Your task to perform on an android device: Open display settings Image 0: 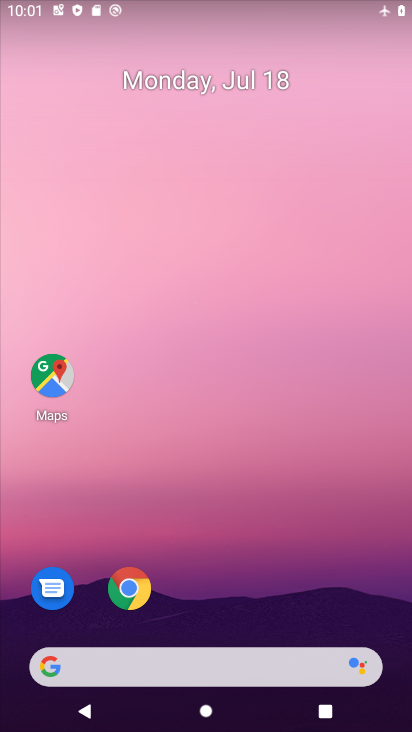
Step 0: drag from (227, 724) to (266, 180)
Your task to perform on an android device: Open display settings Image 1: 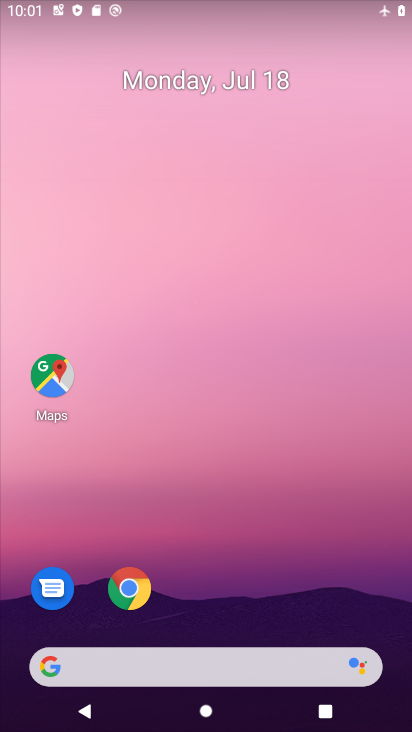
Step 1: drag from (227, 701) to (226, 129)
Your task to perform on an android device: Open display settings Image 2: 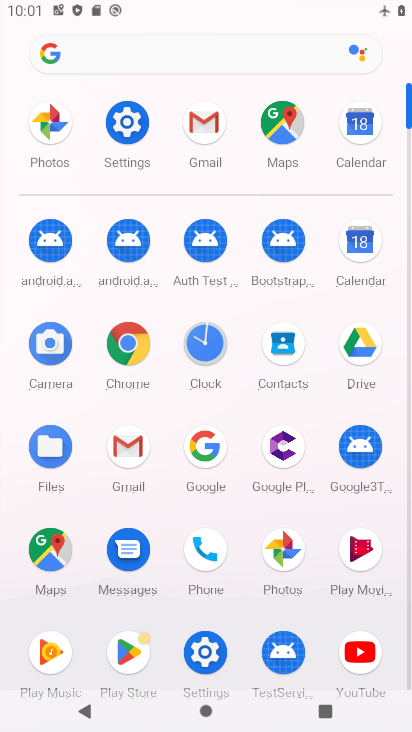
Step 2: click (130, 118)
Your task to perform on an android device: Open display settings Image 3: 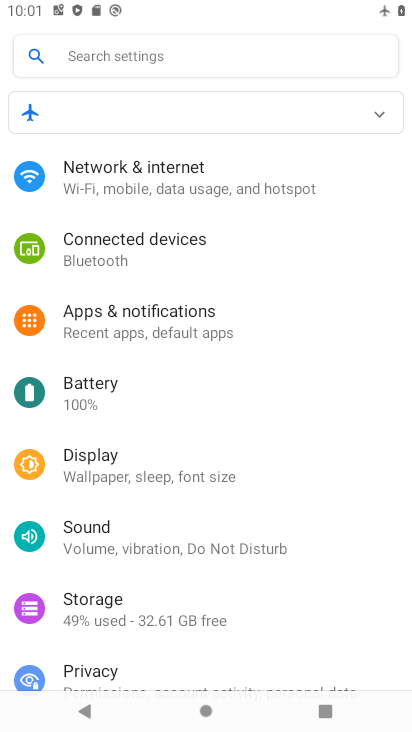
Step 3: click (107, 469)
Your task to perform on an android device: Open display settings Image 4: 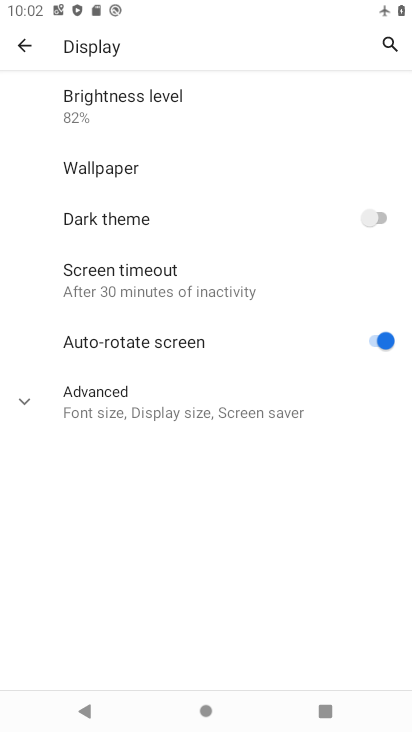
Step 4: task complete